Your task to perform on an android device: open the mobile data screen to see how much data has been used Image 0: 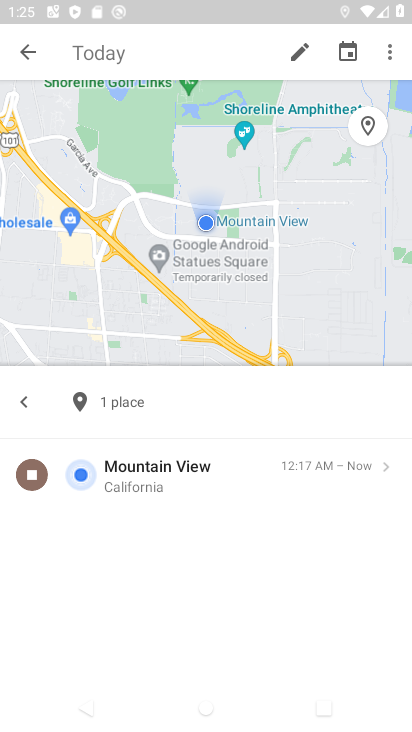
Step 0: press home button
Your task to perform on an android device: open the mobile data screen to see how much data has been used Image 1: 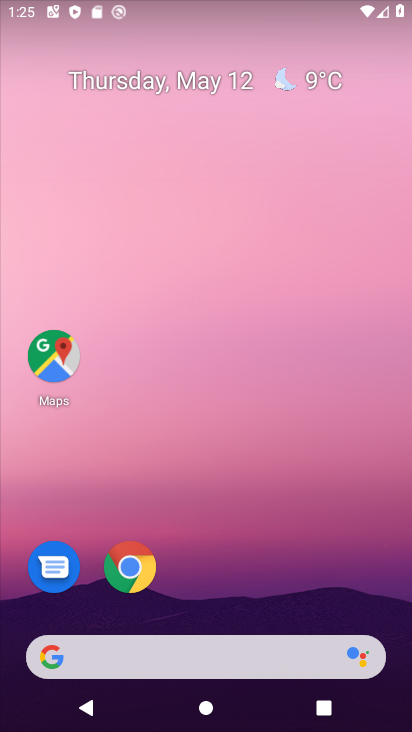
Step 1: drag from (225, 266) to (236, 41)
Your task to perform on an android device: open the mobile data screen to see how much data has been used Image 2: 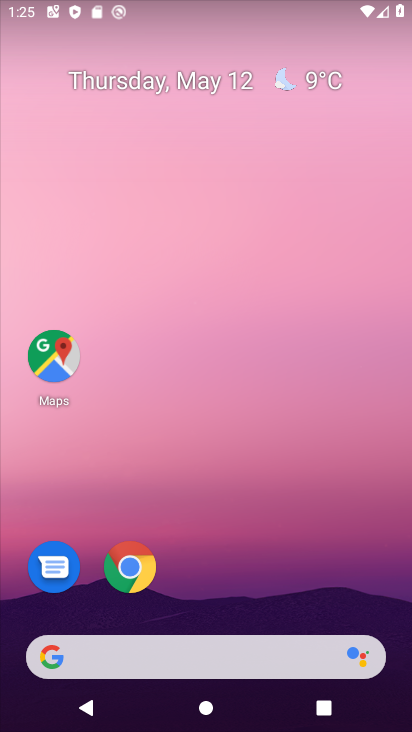
Step 2: drag from (236, 602) to (270, 45)
Your task to perform on an android device: open the mobile data screen to see how much data has been used Image 3: 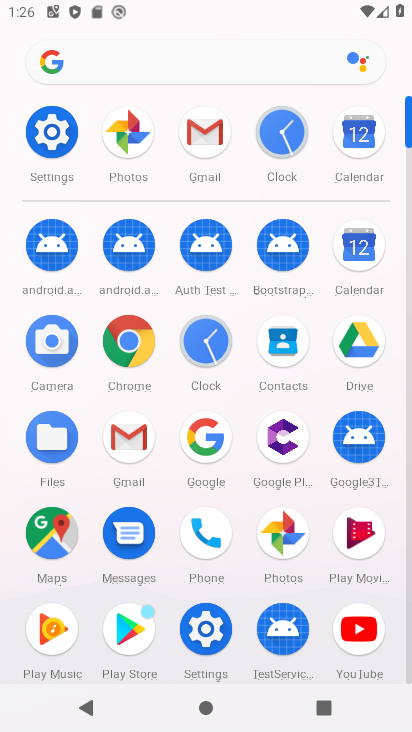
Step 3: click (52, 131)
Your task to perform on an android device: open the mobile data screen to see how much data has been used Image 4: 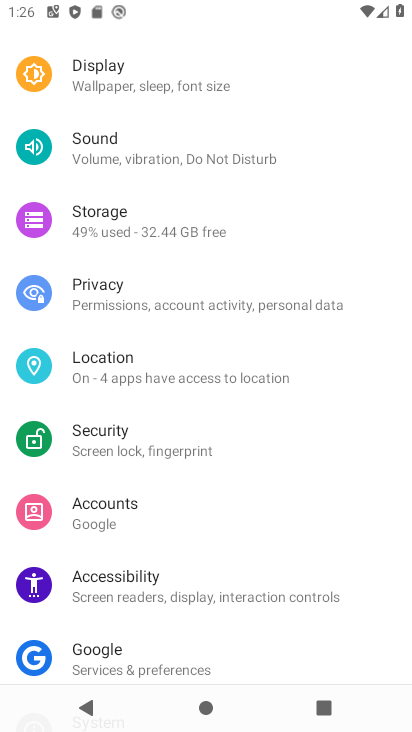
Step 4: drag from (153, 84) to (144, 665)
Your task to perform on an android device: open the mobile data screen to see how much data has been used Image 5: 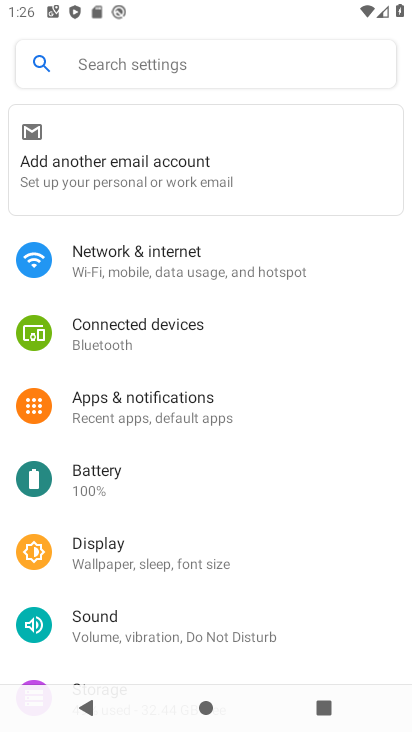
Step 5: click (150, 253)
Your task to perform on an android device: open the mobile data screen to see how much data has been used Image 6: 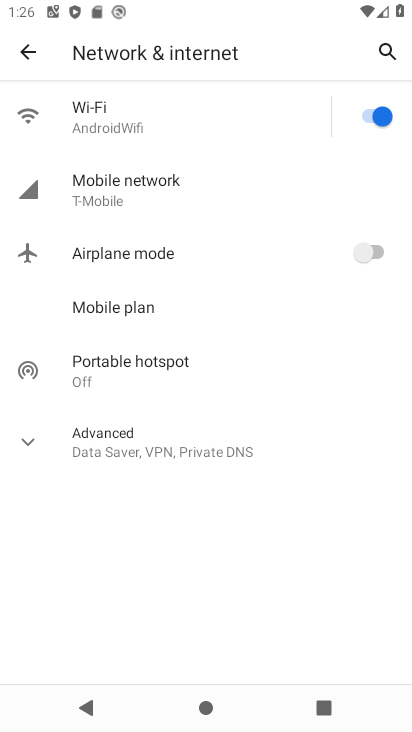
Step 6: click (122, 186)
Your task to perform on an android device: open the mobile data screen to see how much data has been used Image 7: 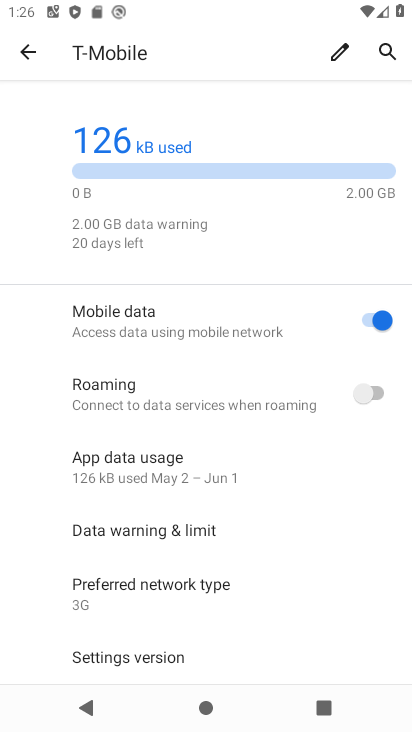
Step 7: click (195, 465)
Your task to perform on an android device: open the mobile data screen to see how much data has been used Image 8: 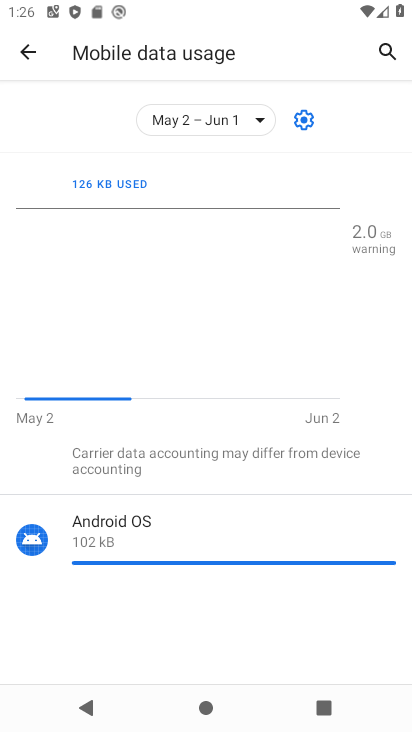
Step 8: task complete